Your task to perform on an android device: Open calendar and show me the fourth week of next month Image 0: 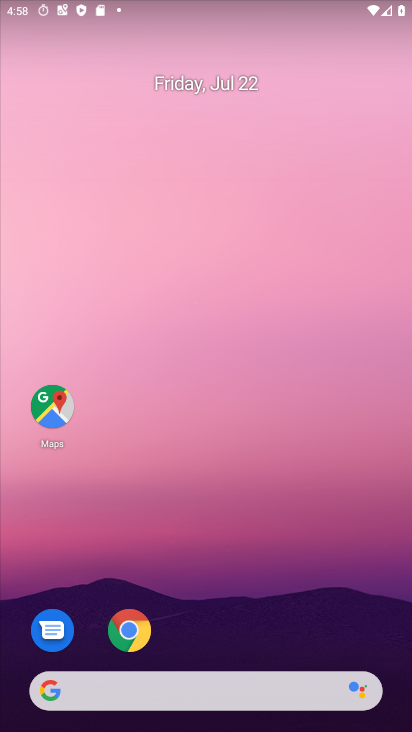
Step 0: drag from (220, 697) to (146, 66)
Your task to perform on an android device: Open calendar and show me the fourth week of next month Image 1: 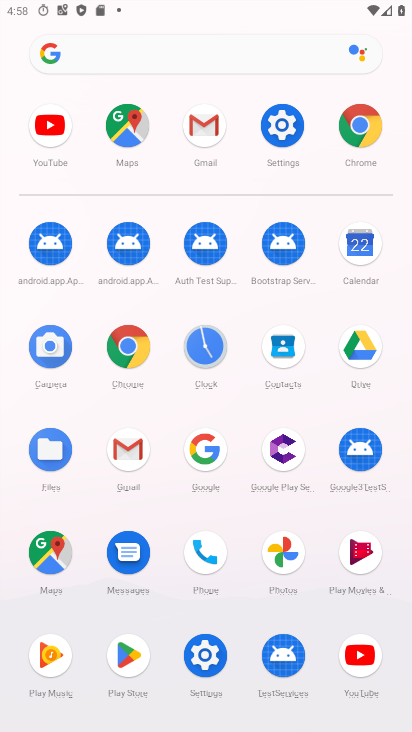
Step 1: click (364, 242)
Your task to perform on an android device: Open calendar and show me the fourth week of next month Image 2: 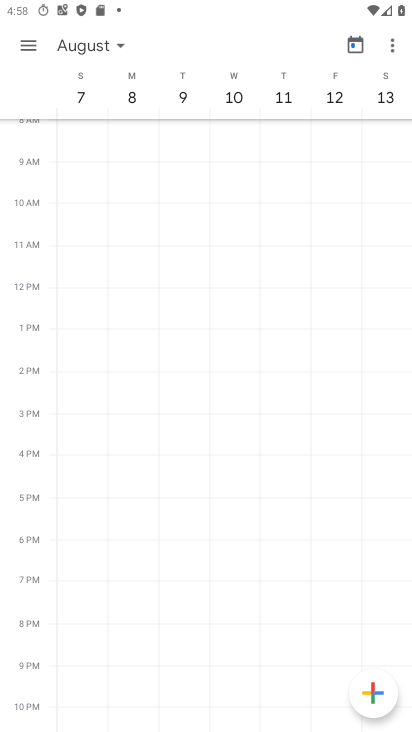
Step 2: click (119, 39)
Your task to perform on an android device: Open calendar and show me the fourth week of next month Image 3: 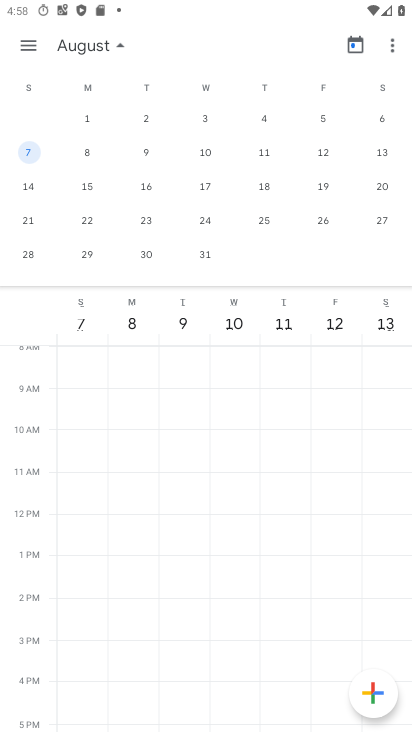
Step 3: click (205, 218)
Your task to perform on an android device: Open calendar and show me the fourth week of next month Image 4: 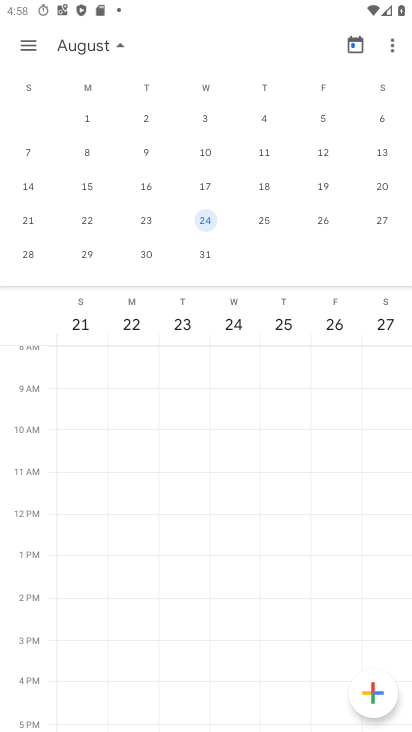
Step 4: task complete